Your task to perform on an android device: open app "Nova Launcher" (install if not already installed) and enter user name: "haggard@gmail.com" and password: "sadder" Image 0: 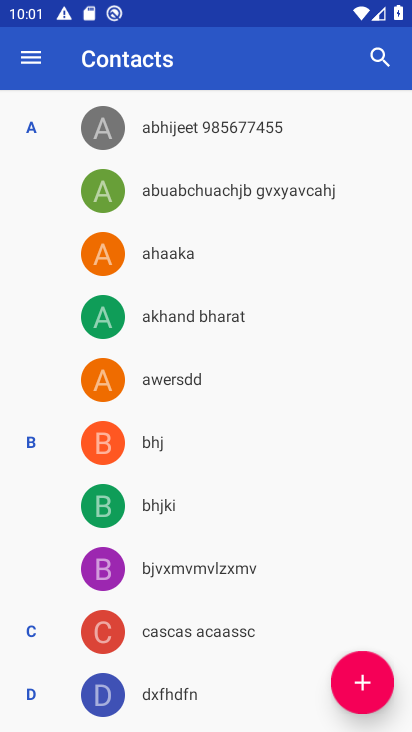
Step 0: press home button
Your task to perform on an android device: open app "Nova Launcher" (install if not already installed) and enter user name: "haggard@gmail.com" and password: "sadder" Image 1: 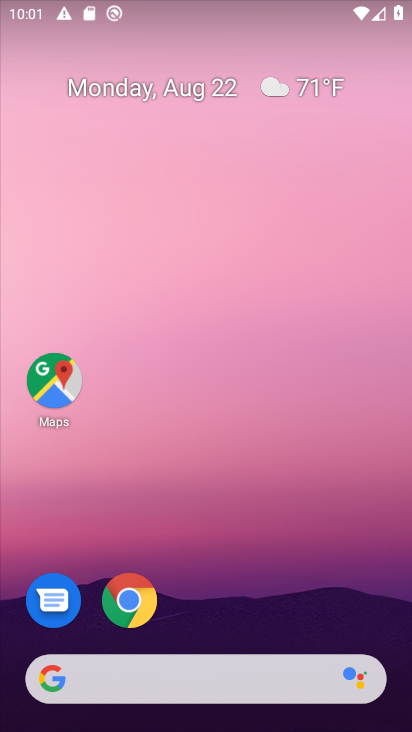
Step 1: drag from (218, 633) to (182, 217)
Your task to perform on an android device: open app "Nova Launcher" (install if not already installed) and enter user name: "haggard@gmail.com" and password: "sadder" Image 2: 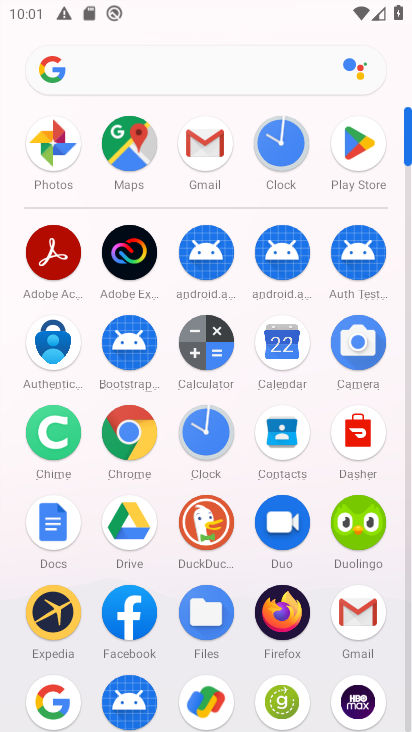
Step 2: click (354, 130)
Your task to perform on an android device: open app "Nova Launcher" (install if not already installed) and enter user name: "haggard@gmail.com" and password: "sadder" Image 3: 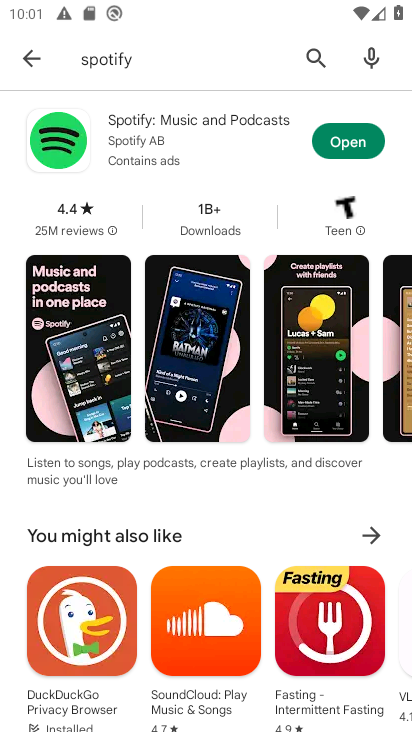
Step 3: click (313, 49)
Your task to perform on an android device: open app "Nova Launcher" (install if not already installed) and enter user name: "haggard@gmail.com" and password: "sadder" Image 4: 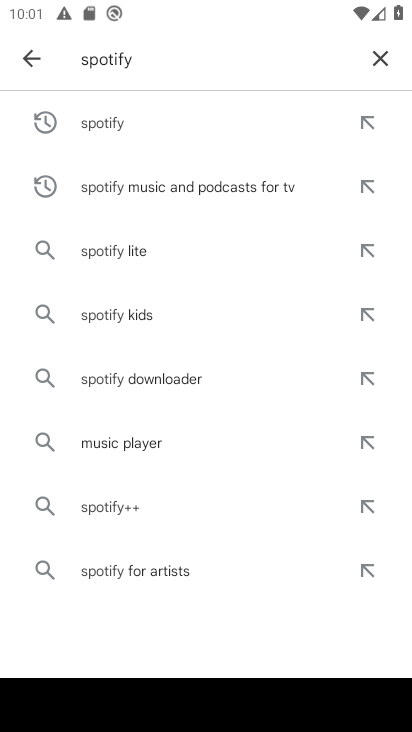
Step 4: click (378, 55)
Your task to perform on an android device: open app "Nova Launcher" (install if not already installed) and enter user name: "haggard@gmail.com" and password: "sadder" Image 5: 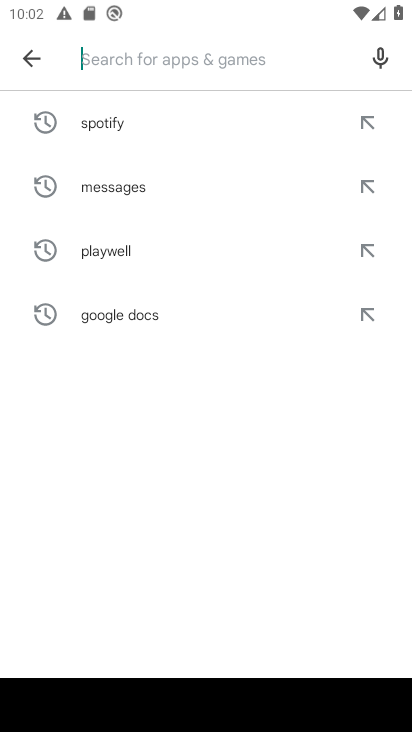
Step 5: type "Nova Launcher"
Your task to perform on an android device: open app "Nova Launcher" (install if not already installed) and enter user name: "haggard@gmail.com" and password: "sadder" Image 6: 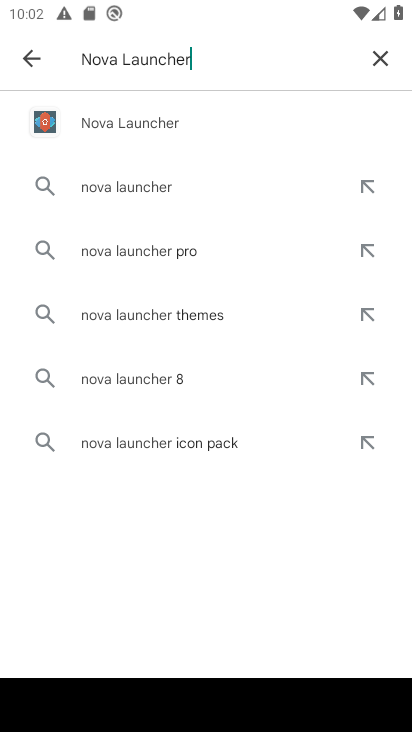
Step 6: type ""
Your task to perform on an android device: open app "Nova Launcher" (install if not already installed) and enter user name: "haggard@gmail.com" and password: "sadder" Image 7: 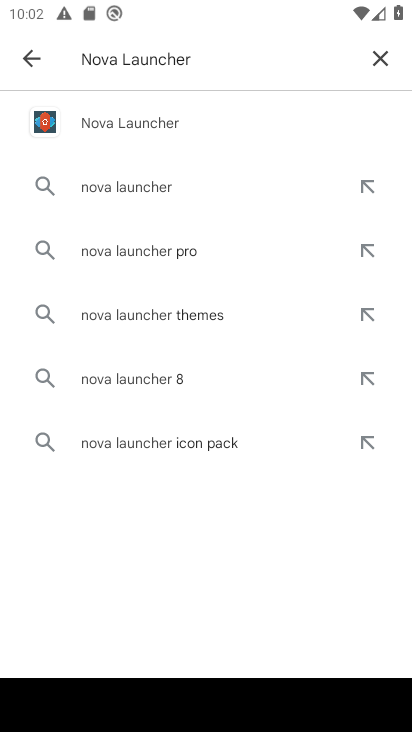
Step 7: click (161, 121)
Your task to perform on an android device: open app "Nova Launcher" (install if not already installed) and enter user name: "haggard@gmail.com" and password: "sadder" Image 8: 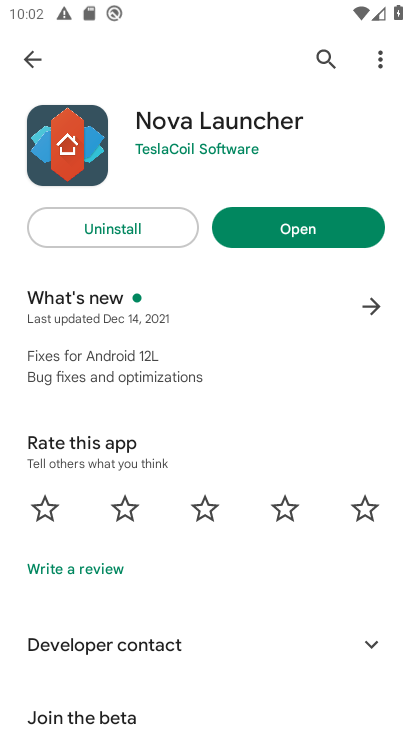
Step 8: click (297, 238)
Your task to perform on an android device: open app "Nova Launcher" (install if not already installed) and enter user name: "haggard@gmail.com" and password: "sadder" Image 9: 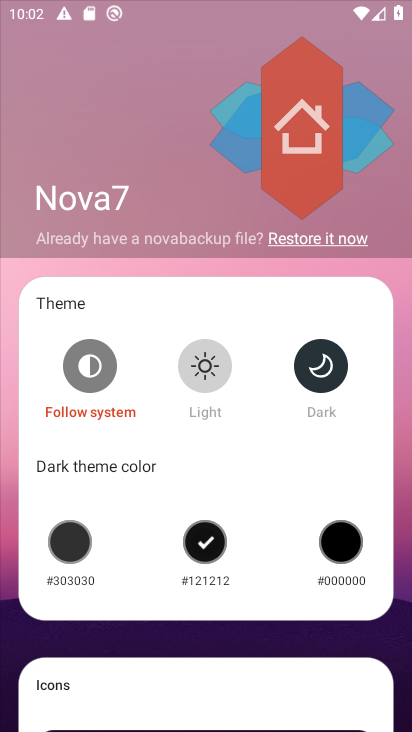
Step 9: task complete